Your task to perform on an android device: Open network settings Image 0: 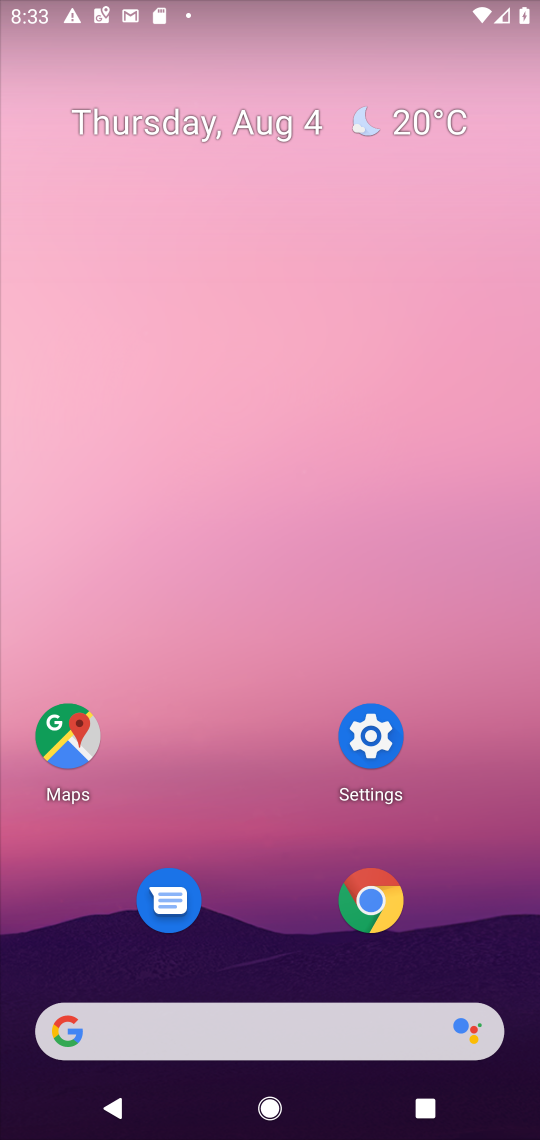
Step 0: press home button
Your task to perform on an android device: Open network settings Image 1: 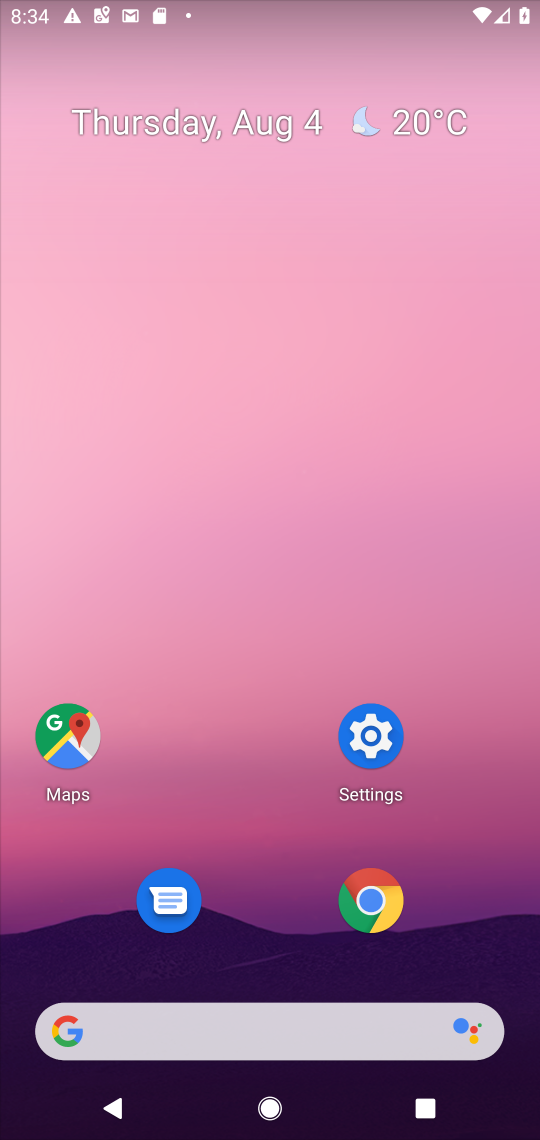
Step 1: click (368, 737)
Your task to perform on an android device: Open network settings Image 2: 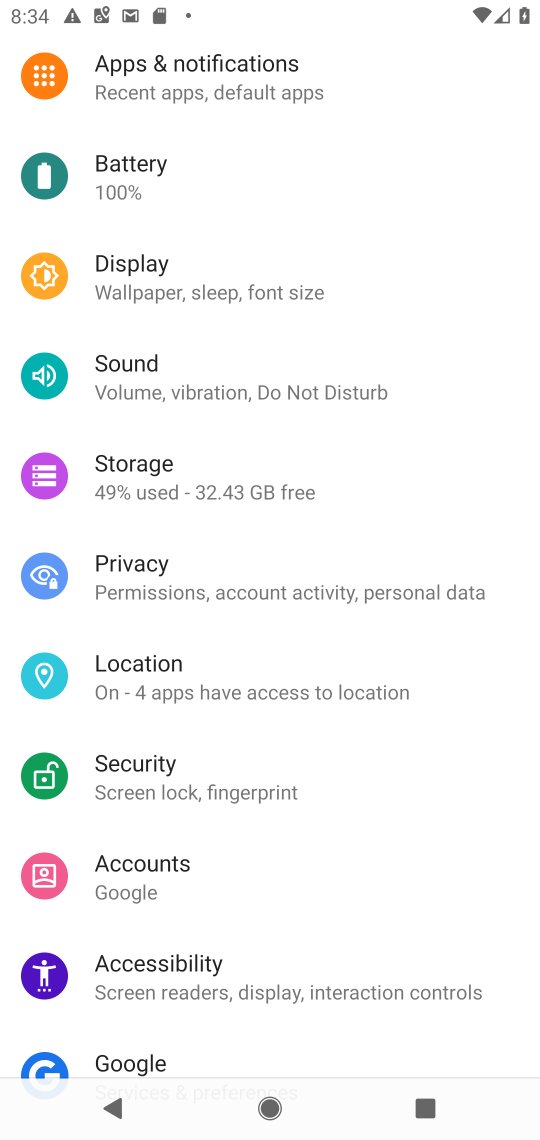
Step 2: drag from (444, 119) to (328, 1046)
Your task to perform on an android device: Open network settings Image 3: 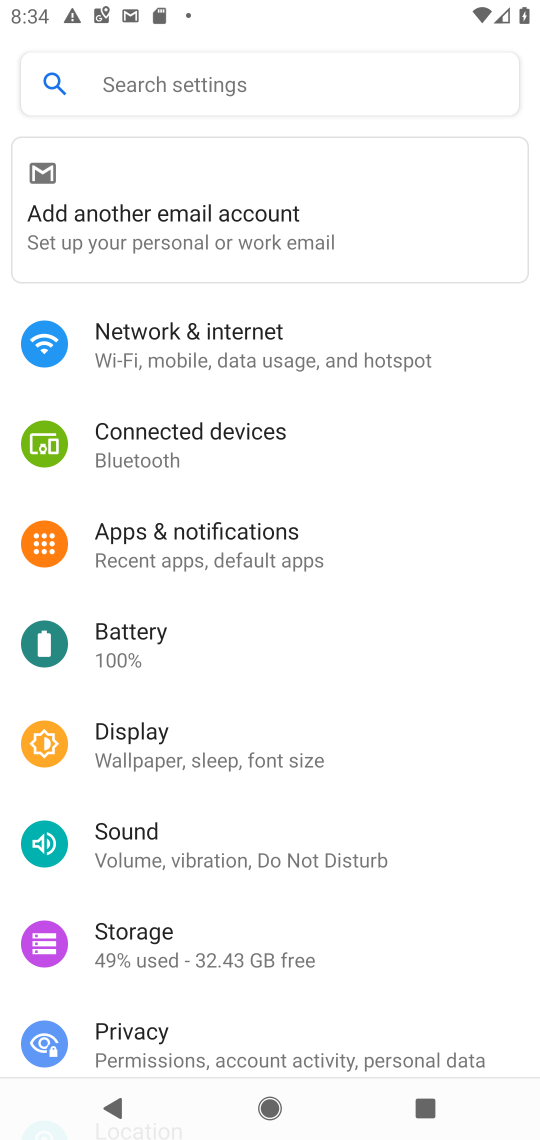
Step 3: click (232, 353)
Your task to perform on an android device: Open network settings Image 4: 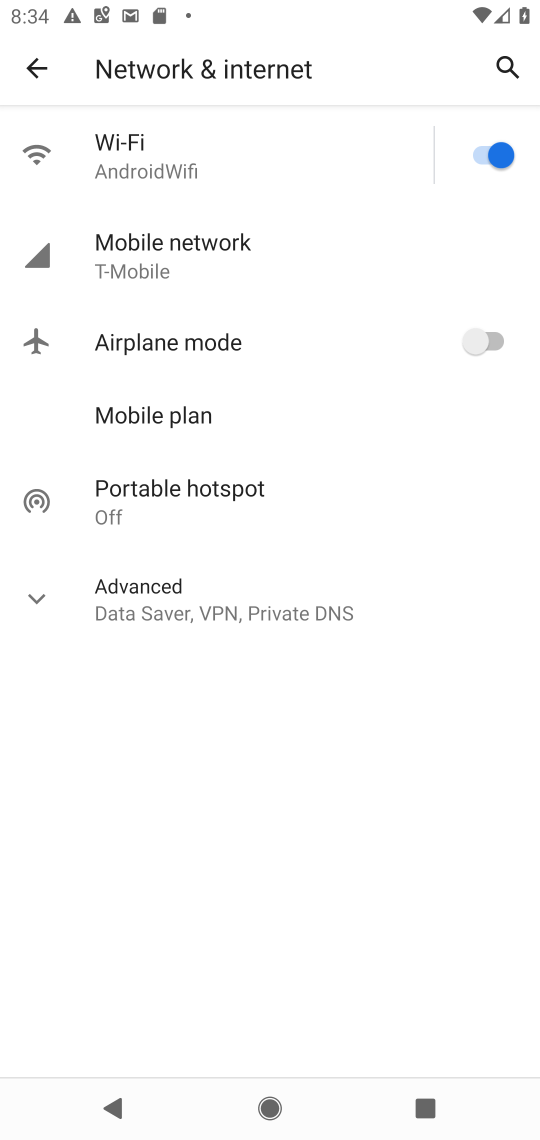
Step 4: click (211, 258)
Your task to perform on an android device: Open network settings Image 5: 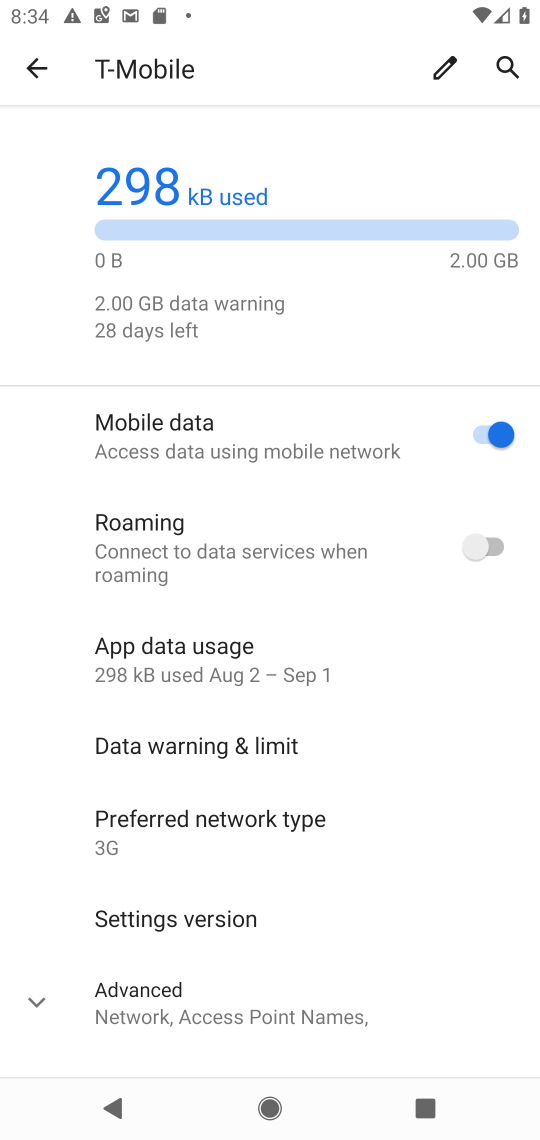
Step 5: task complete